Your task to perform on an android device: Open Google Chrome Image 0: 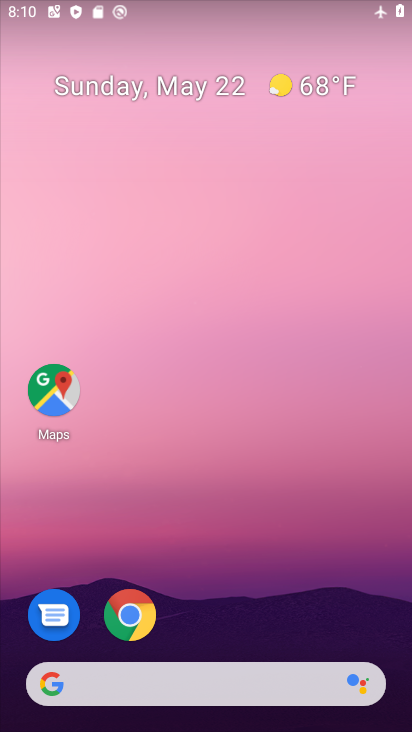
Step 0: click (149, 624)
Your task to perform on an android device: Open Google Chrome Image 1: 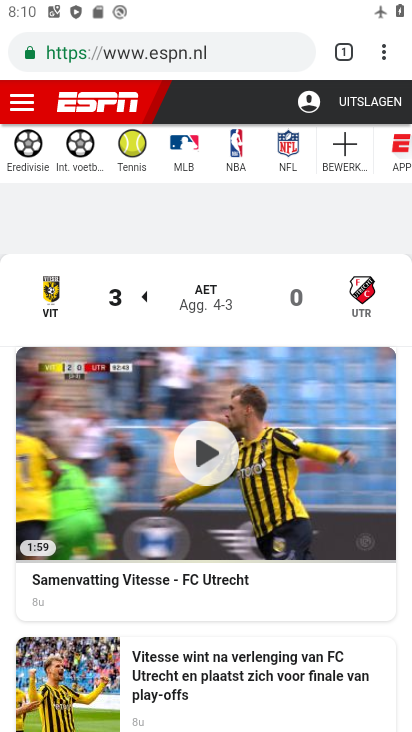
Step 1: task complete